Your task to perform on an android device: View the shopping cart on costco. Add "beats solo 3" to the cart on costco, then select checkout. Image 0: 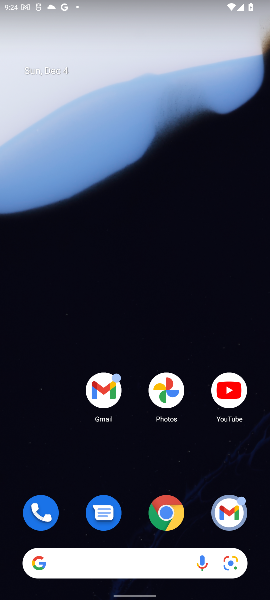
Step 0: click (172, 505)
Your task to perform on an android device: View the shopping cart on costco. Add "beats solo 3" to the cart on costco, then select checkout. Image 1: 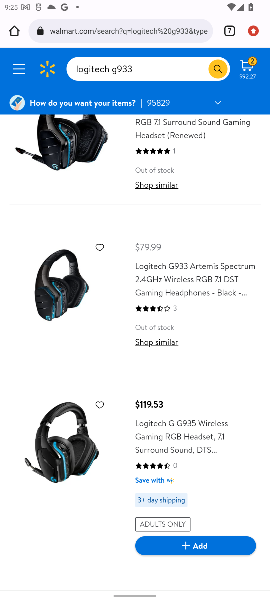
Step 1: click (229, 24)
Your task to perform on an android device: View the shopping cart on costco. Add "beats solo 3" to the cart on costco, then select checkout. Image 2: 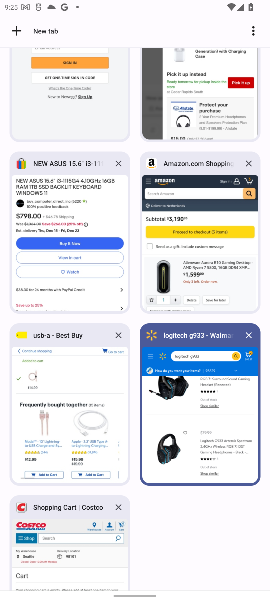
Step 2: click (66, 520)
Your task to perform on an android device: View the shopping cart on costco. Add "beats solo 3" to the cart on costco, then select checkout. Image 3: 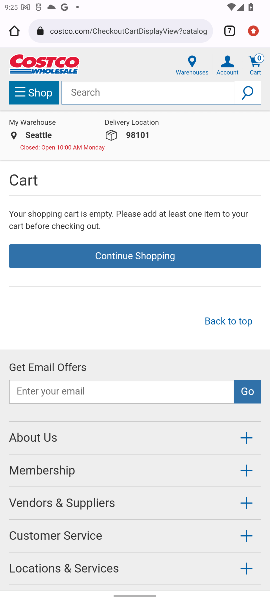
Step 3: click (160, 91)
Your task to perform on an android device: View the shopping cart on costco. Add "beats solo 3" to the cart on costco, then select checkout. Image 4: 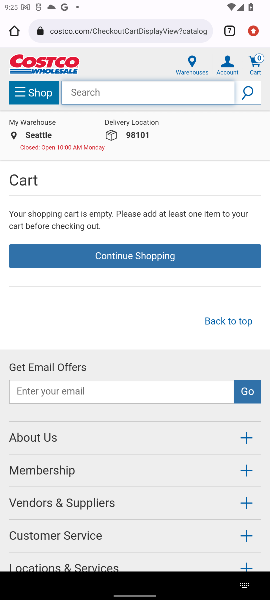
Step 4: type "beats solo 3"
Your task to perform on an android device: View the shopping cart on costco. Add "beats solo 3" to the cart on costco, then select checkout. Image 5: 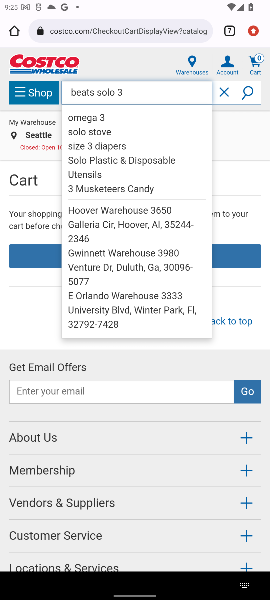
Step 5: click (247, 90)
Your task to perform on an android device: View the shopping cart on costco. Add "beats solo 3" to the cart on costco, then select checkout. Image 6: 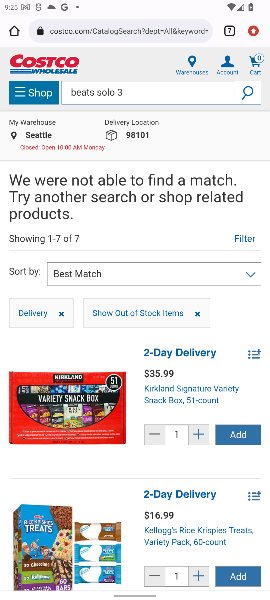
Step 6: task complete